Your task to perform on an android device: Search for beats solo 3 on amazon, select the first entry, and add it to the cart. Image 0: 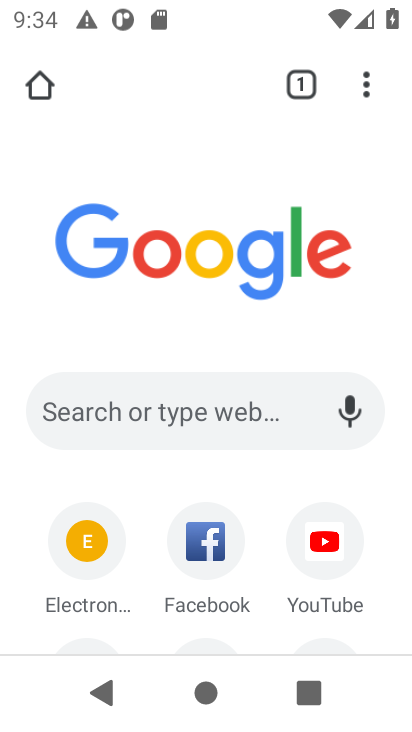
Step 0: press home button
Your task to perform on an android device: Search for beats solo 3 on amazon, select the first entry, and add it to the cart. Image 1: 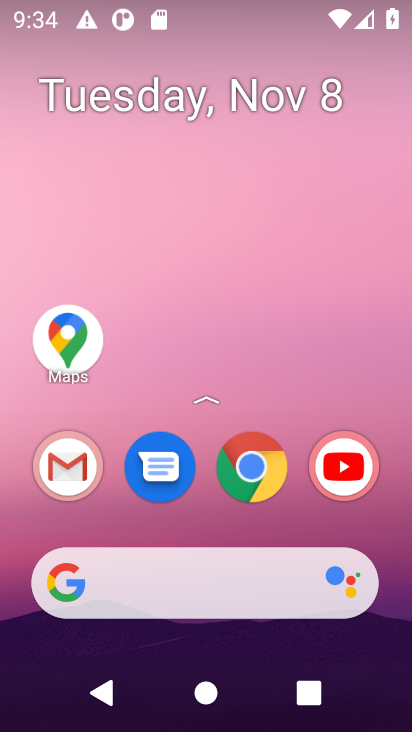
Step 1: click (227, 571)
Your task to perform on an android device: Search for beats solo 3 on amazon, select the first entry, and add it to the cart. Image 2: 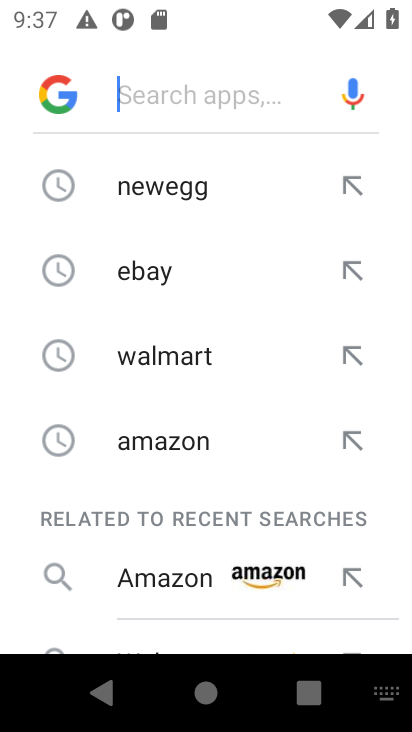
Step 2: click (183, 445)
Your task to perform on an android device: Search for beats solo 3 on amazon, select the first entry, and add it to the cart. Image 3: 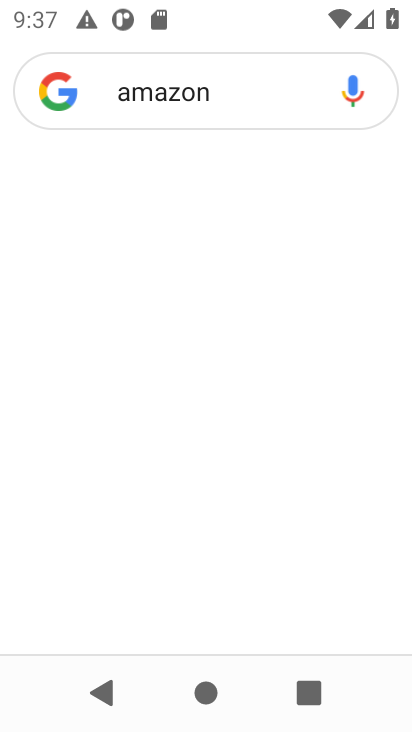
Step 3: task complete